Your task to perform on an android device: Search for vegetarian restaurants on Maps Image 0: 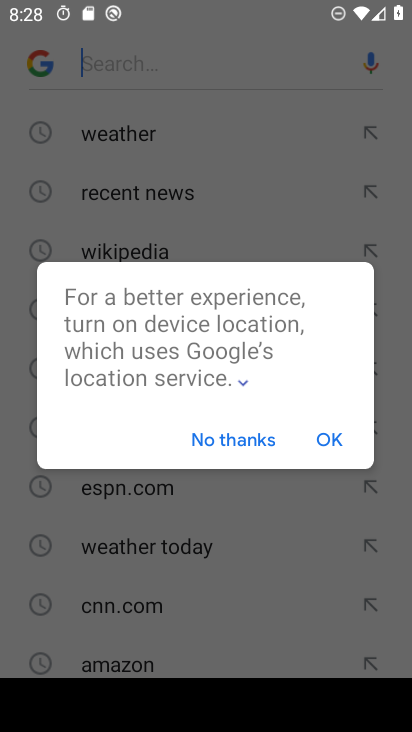
Step 0: press home button
Your task to perform on an android device: Search for vegetarian restaurants on Maps Image 1: 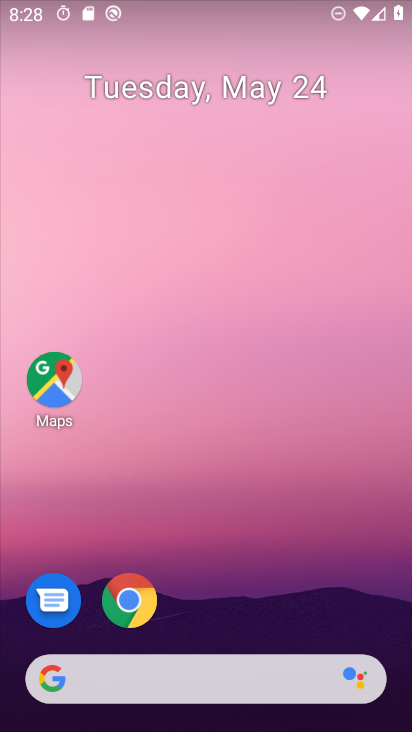
Step 1: click (52, 376)
Your task to perform on an android device: Search for vegetarian restaurants on Maps Image 2: 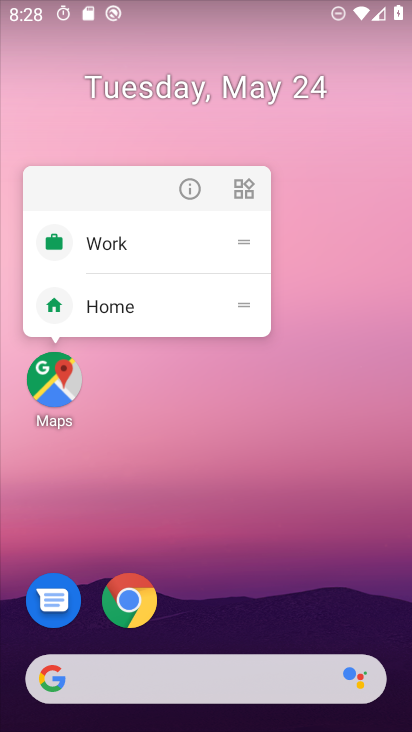
Step 2: click (50, 373)
Your task to perform on an android device: Search for vegetarian restaurants on Maps Image 3: 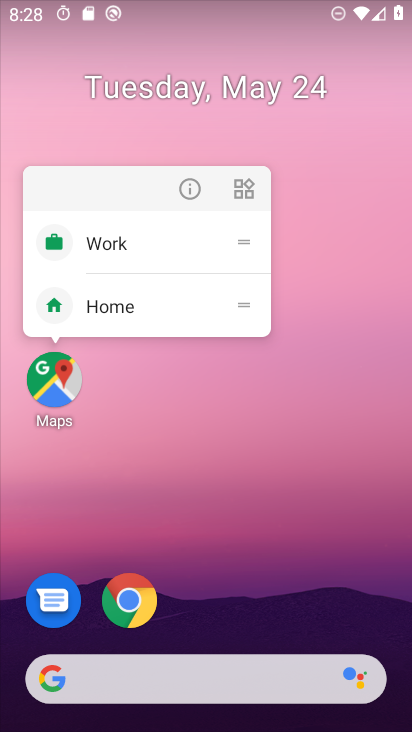
Step 3: click (50, 373)
Your task to perform on an android device: Search for vegetarian restaurants on Maps Image 4: 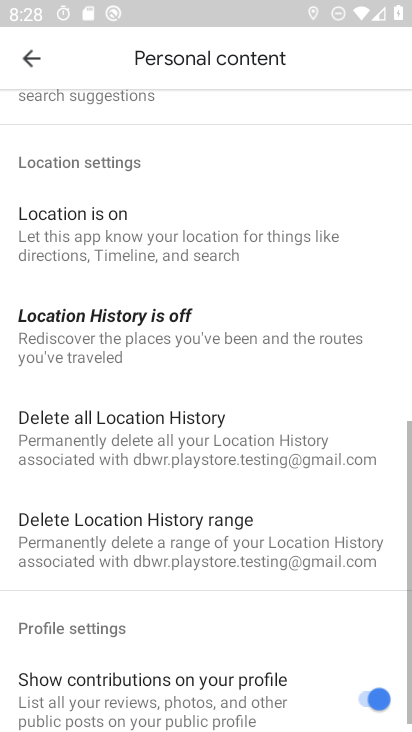
Step 4: click (43, 60)
Your task to perform on an android device: Search for vegetarian restaurants on Maps Image 5: 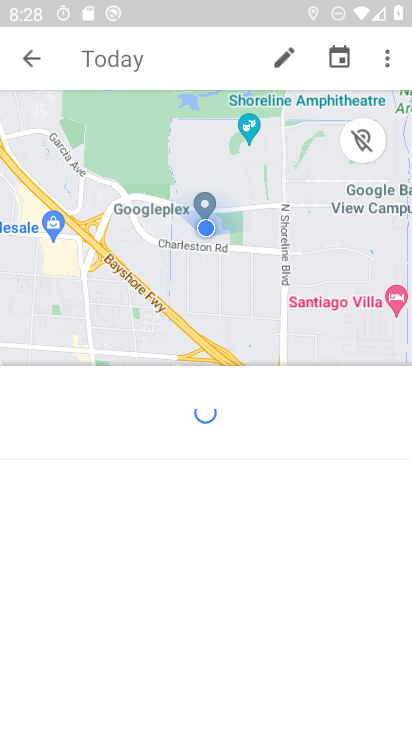
Step 5: click (19, 51)
Your task to perform on an android device: Search for vegetarian restaurants on Maps Image 6: 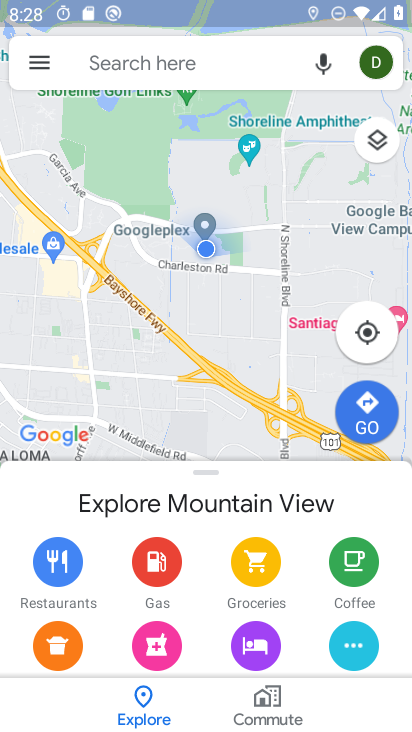
Step 6: click (129, 58)
Your task to perform on an android device: Search for vegetarian restaurants on Maps Image 7: 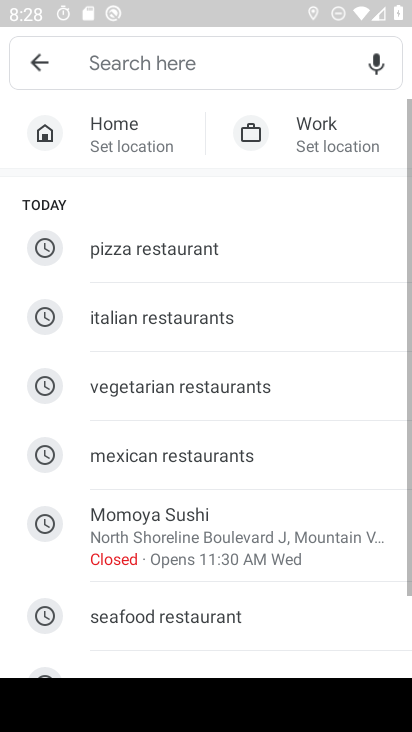
Step 7: click (130, 387)
Your task to perform on an android device: Search for vegetarian restaurants on Maps Image 8: 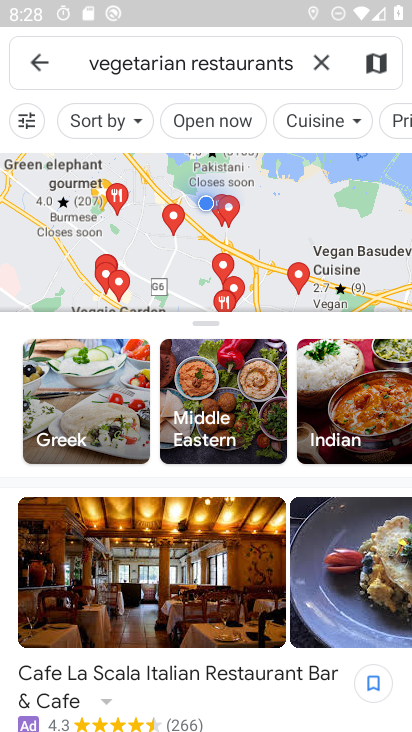
Step 8: task complete